Your task to perform on an android device: change the upload size in google photos Image 0: 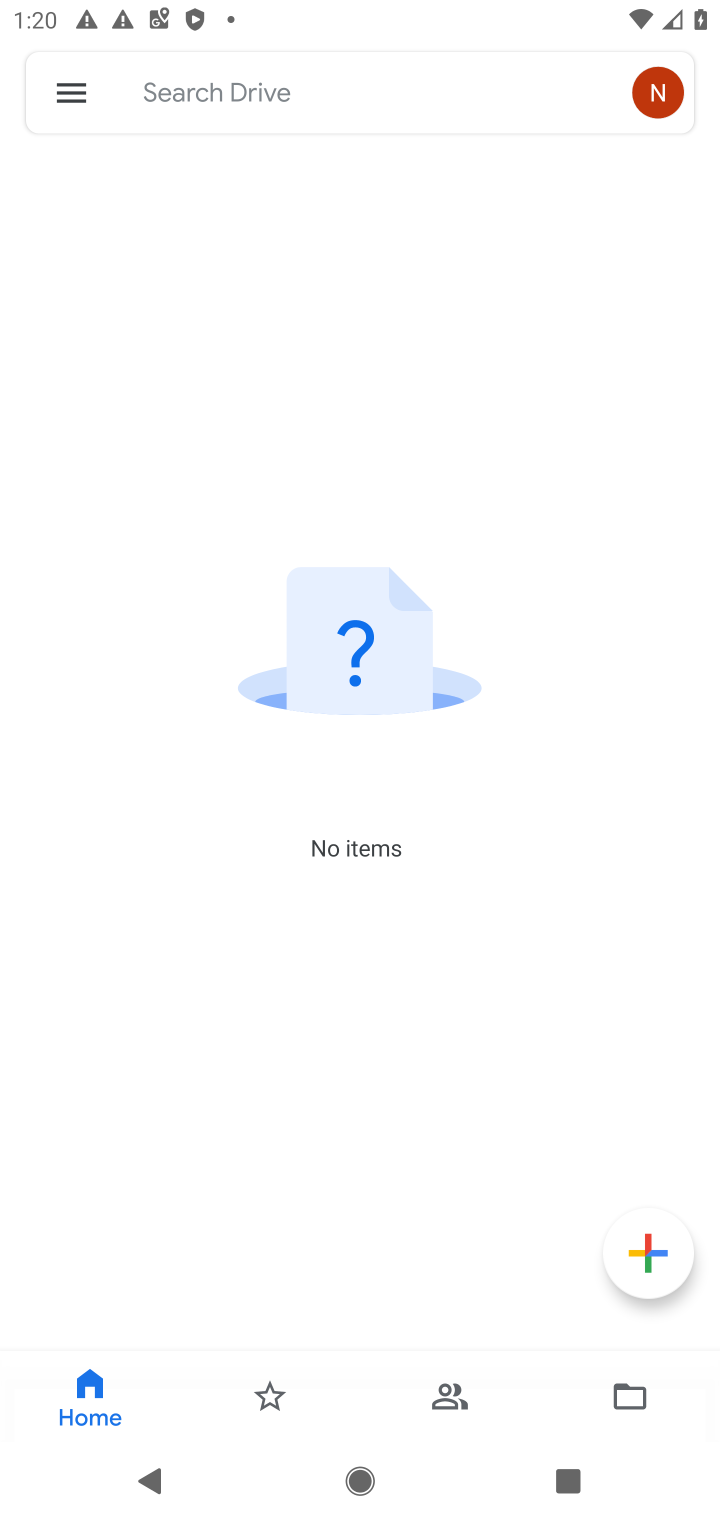
Step 0: press home button
Your task to perform on an android device: change the upload size in google photos Image 1: 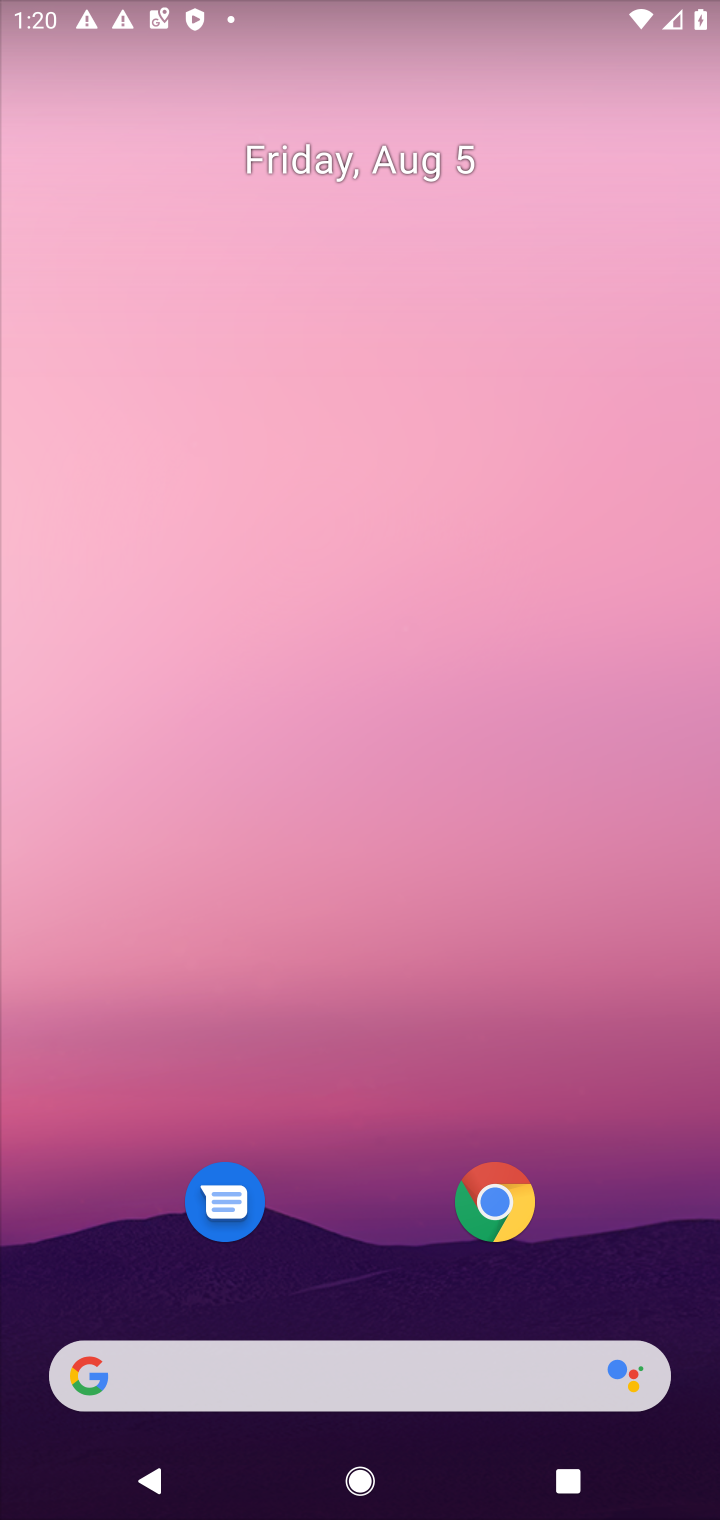
Step 1: drag from (669, 987) to (672, 253)
Your task to perform on an android device: change the upload size in google photos Image 2: 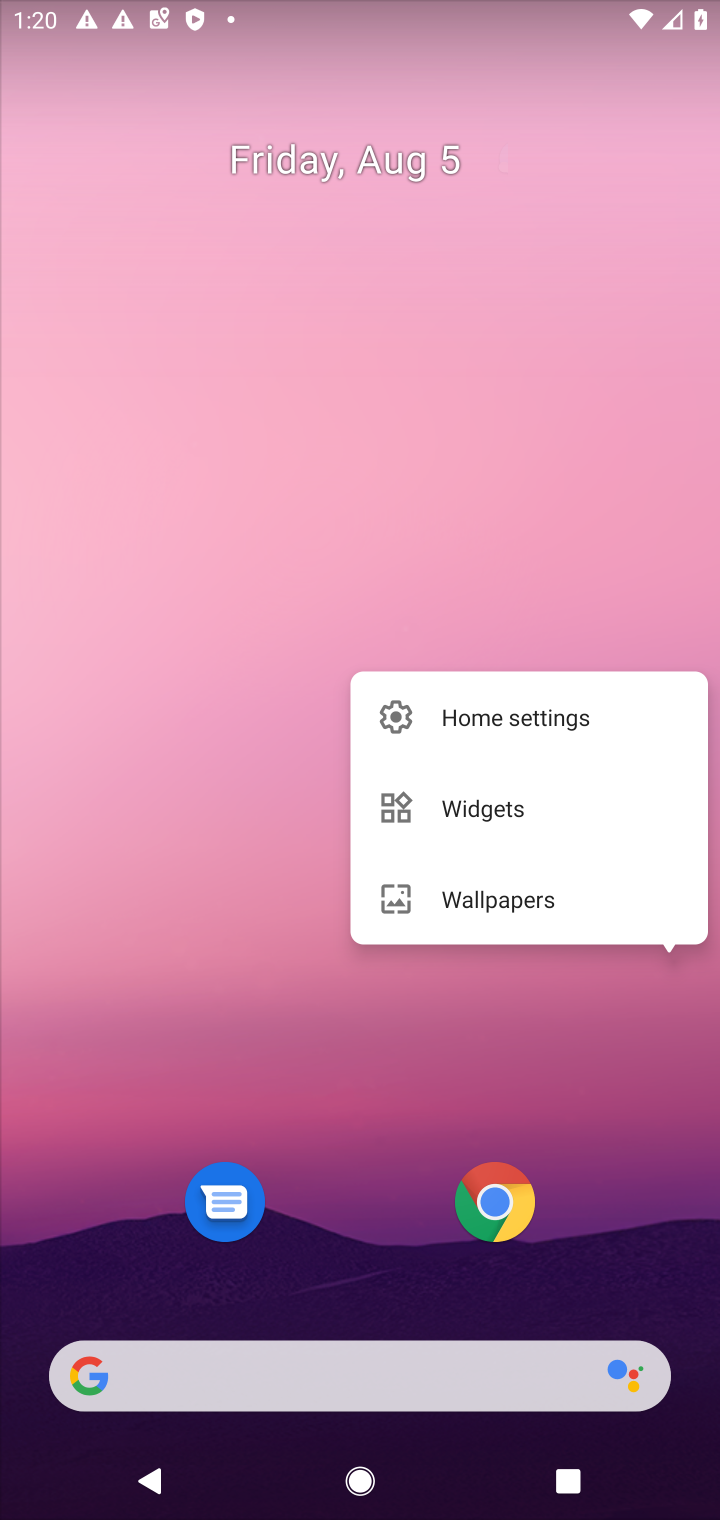
Step 2: click (138, 474)
Your task to perform on an android device: change the upload size in google photos Image 3: 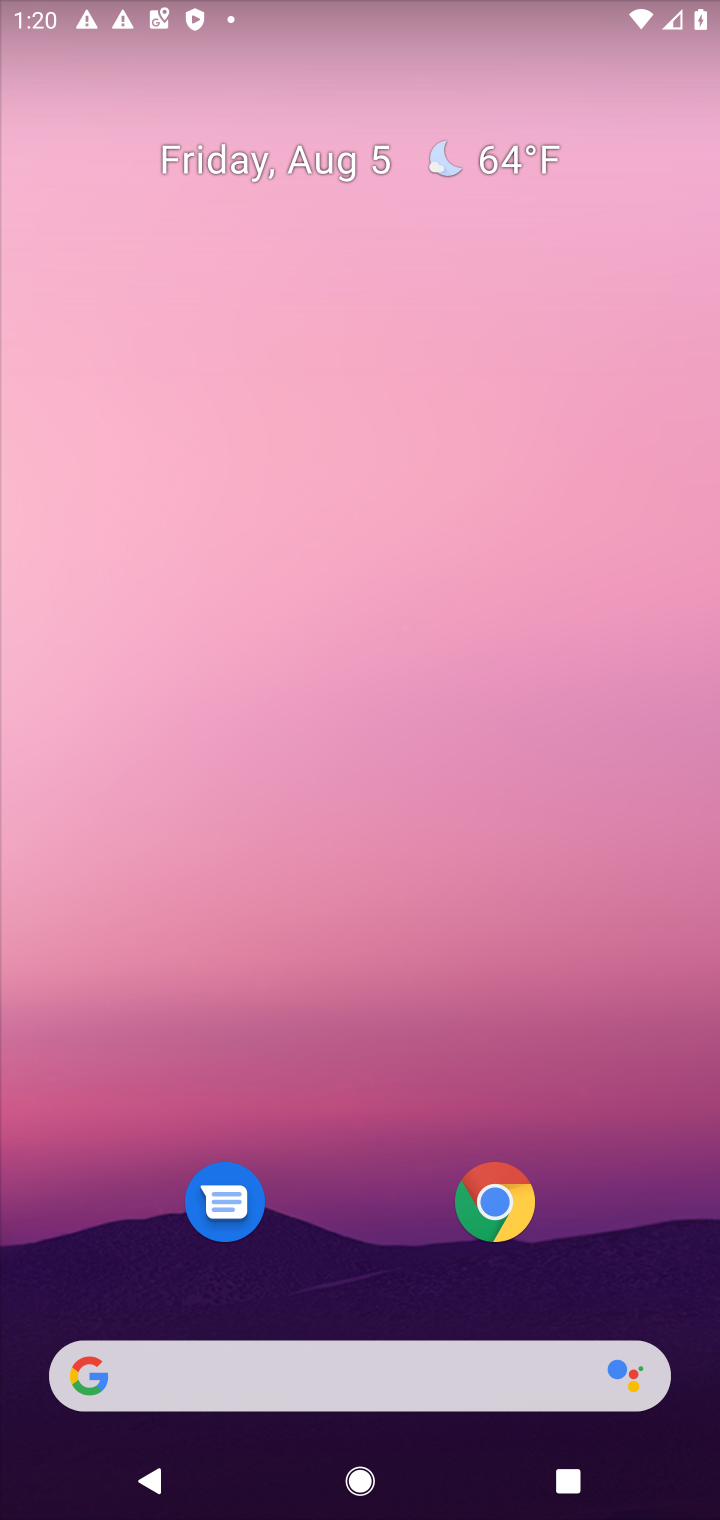
Step 3: drag from (376, 1219) to (543, 231)
Your task to perform on an android device: change the upload size in google photos Image 4: 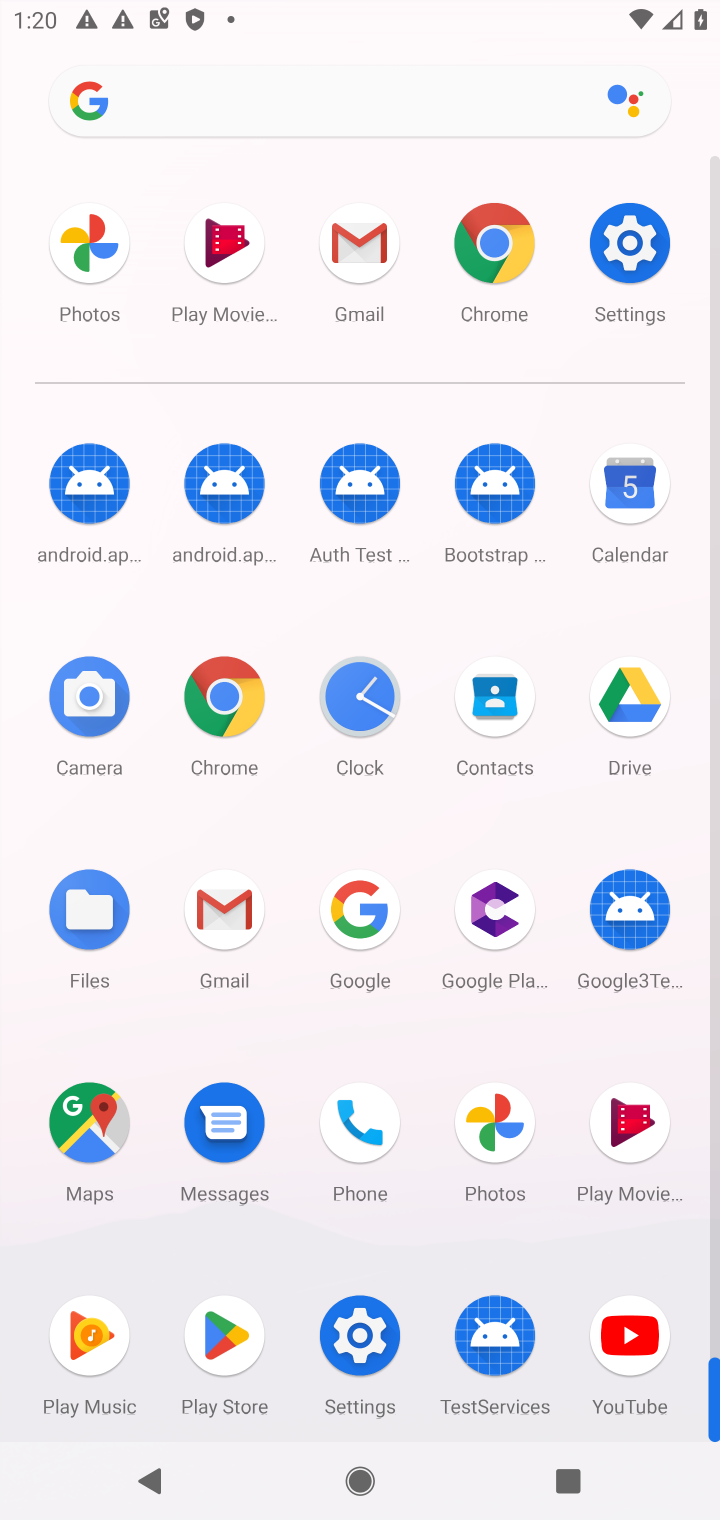
Step 4: click (486, 1116)
Your task to perform on an android device: change the upload size in google photos Image 5: 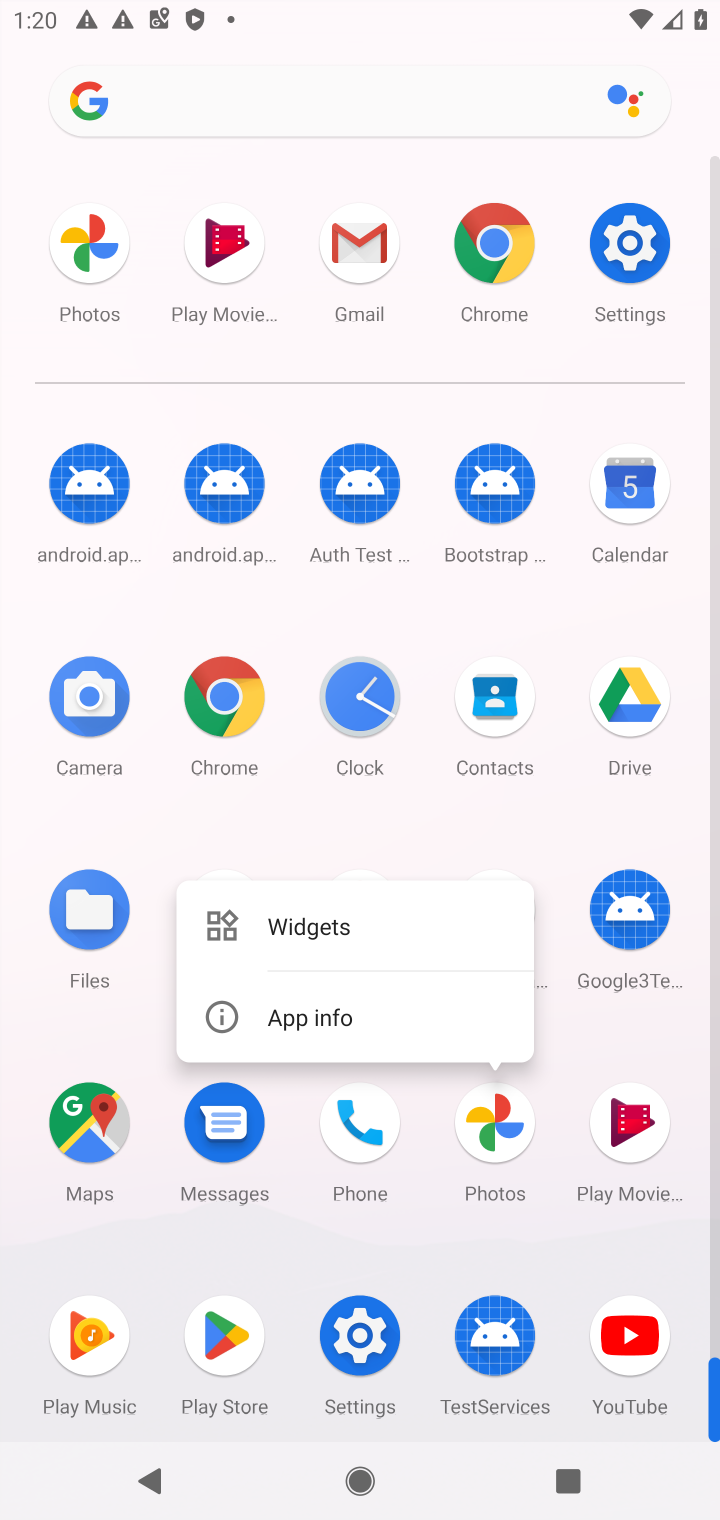
Step 5: click (492, 1124)
Your task to perform on an android device: change the upload size in google photos Image 6: 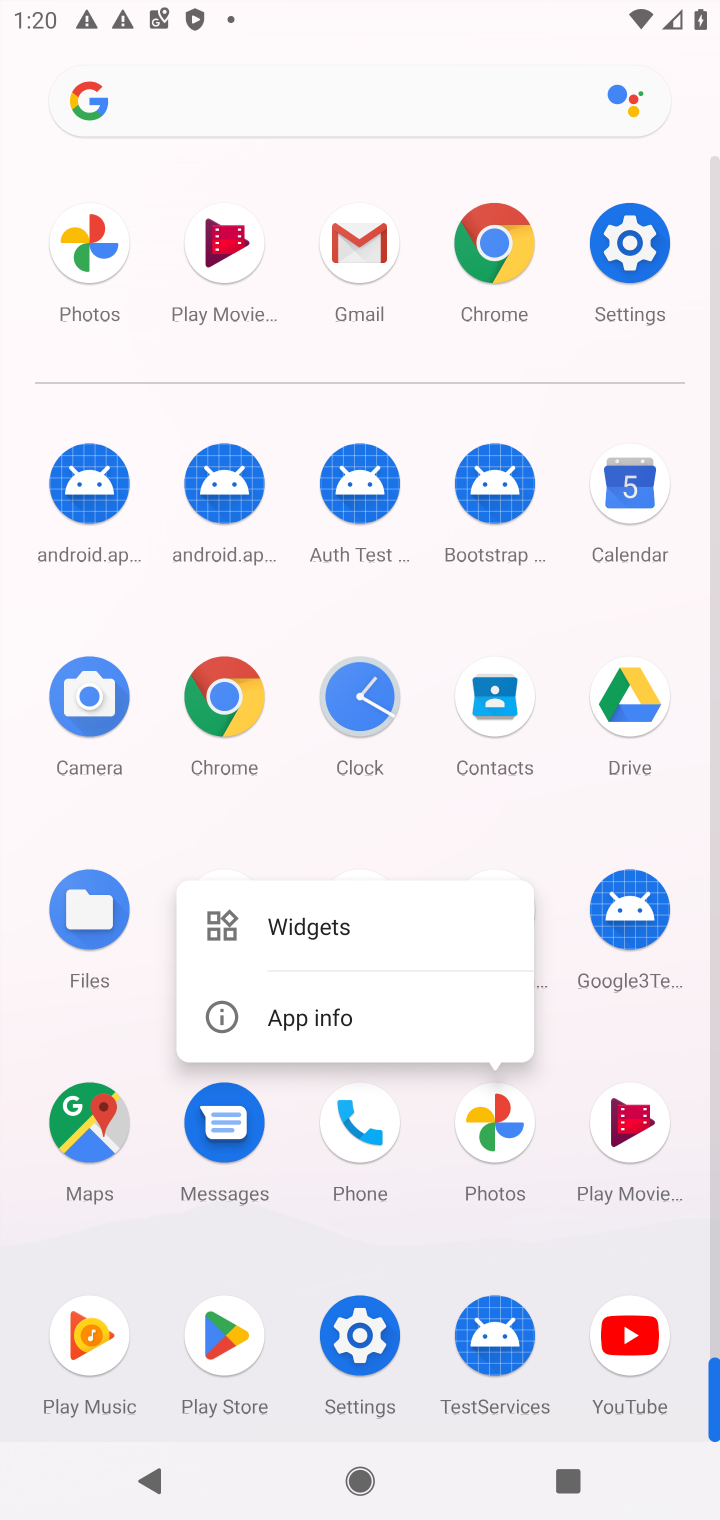
Step 6: click (492, 1124)
Your task to perform on an android device: change the upload size in google photos Image 7: 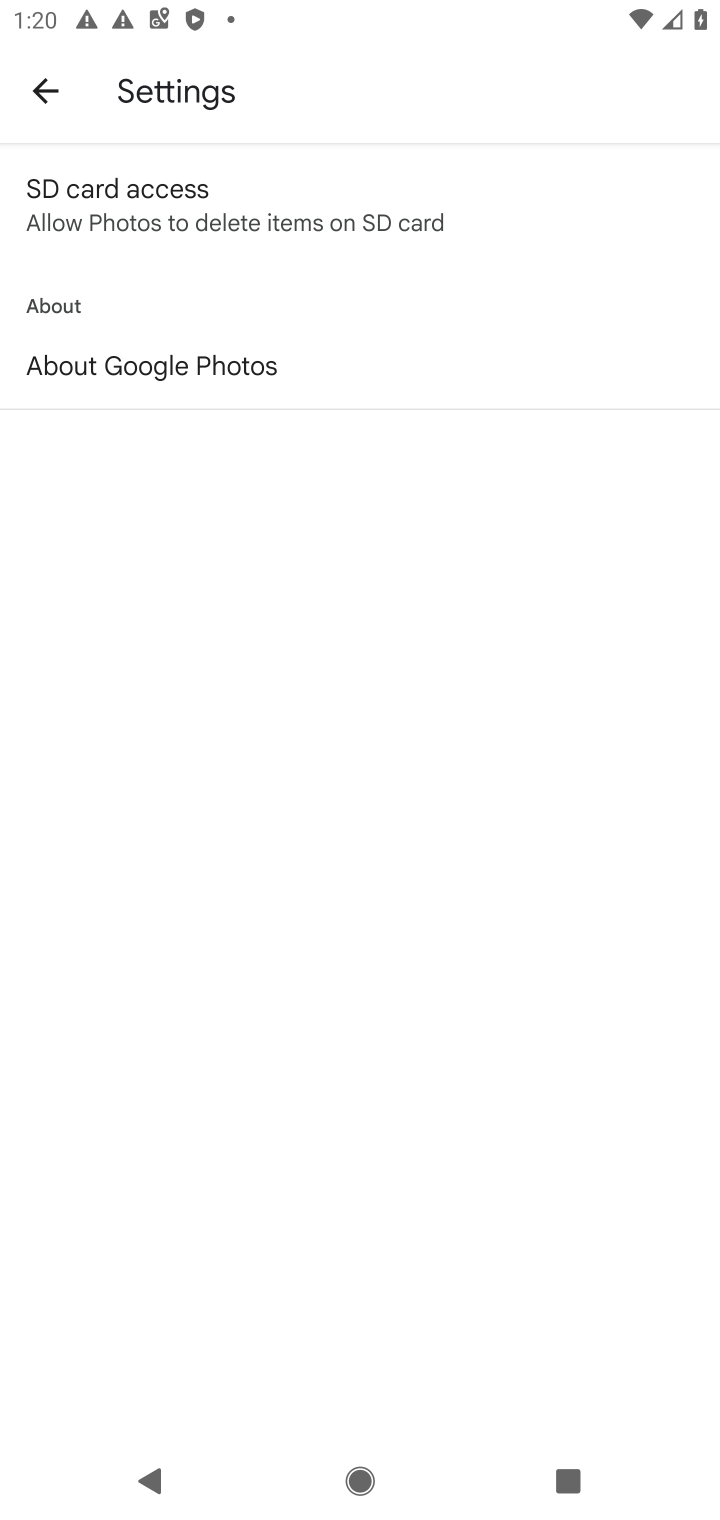
Step 7: click (45, 73)
Your task to perform on an android device: change the upload size in google photos Image 8: 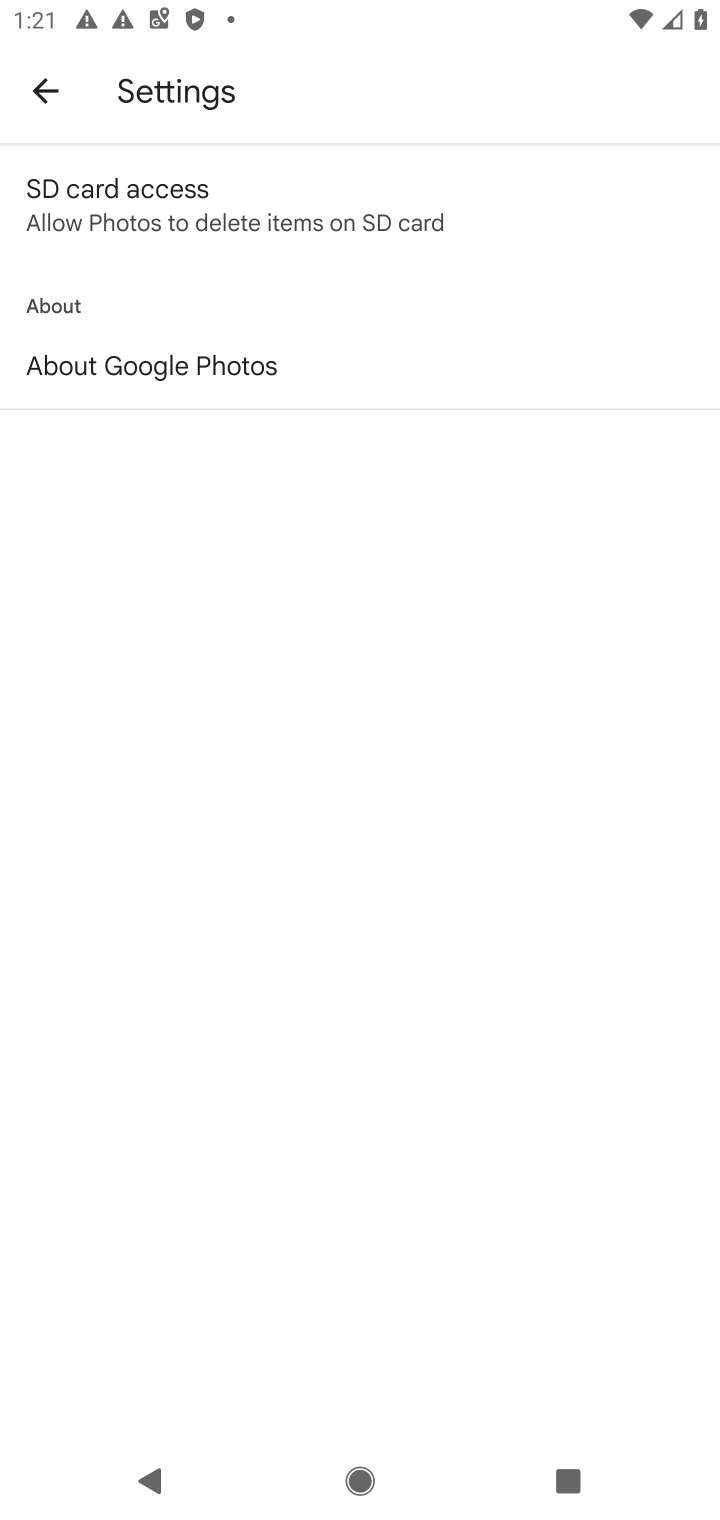
Step 8: click (36, 90)
Your task to perform on an android device: change the upload size in google photos Image 9: 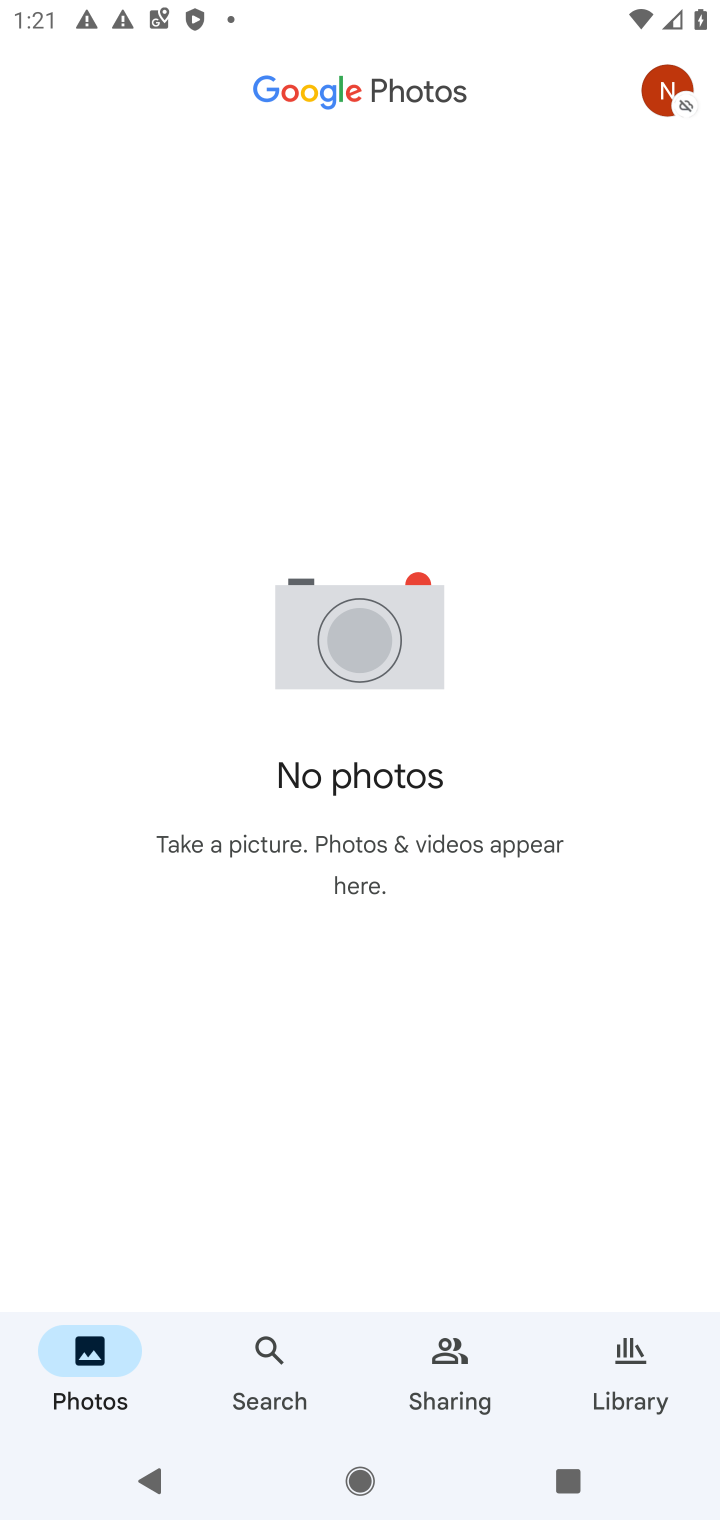
Step 9: click (677, 85)
Your task to perform on an android device: change the upload size in google photos Image 10: 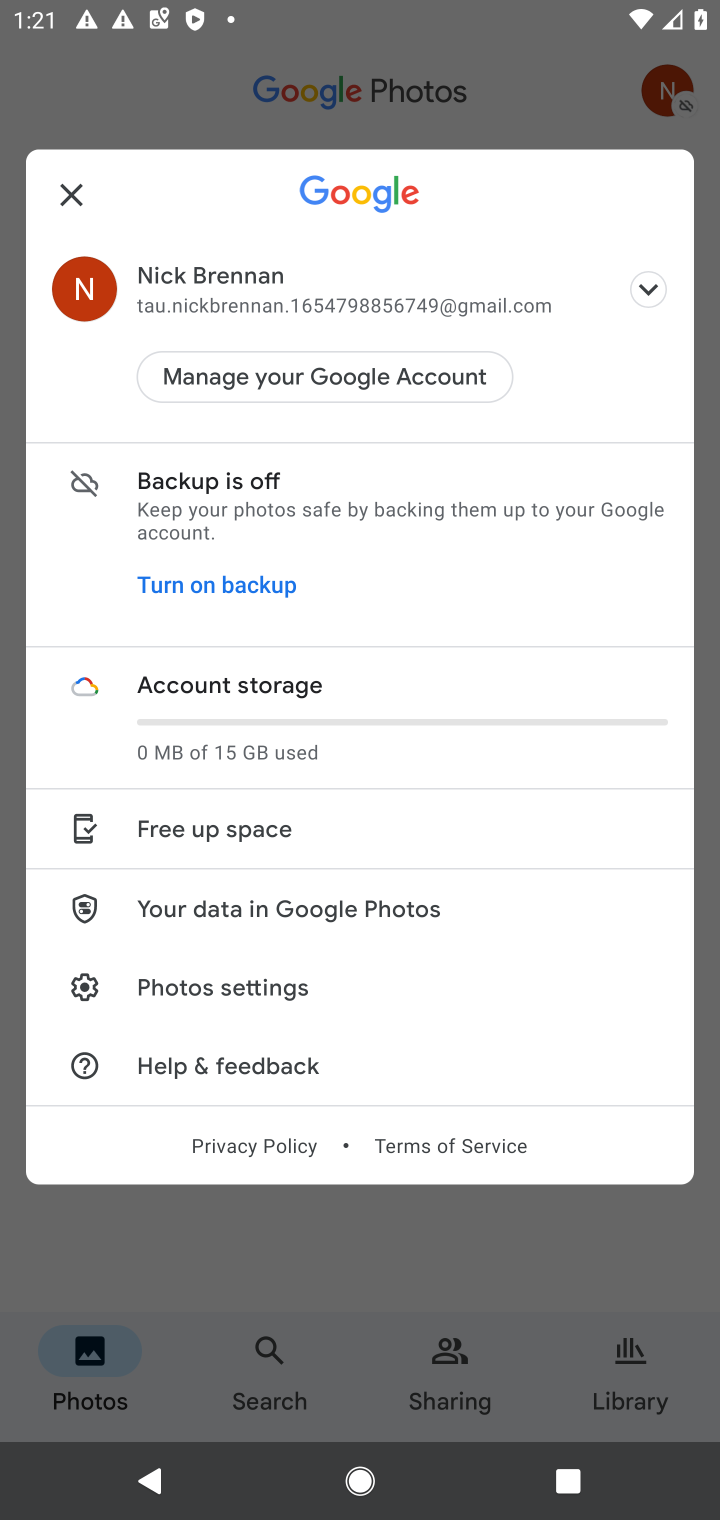
Step 10: click (288, 991)
Your task to perform on an android device: change the upload size in google photos Image 11: 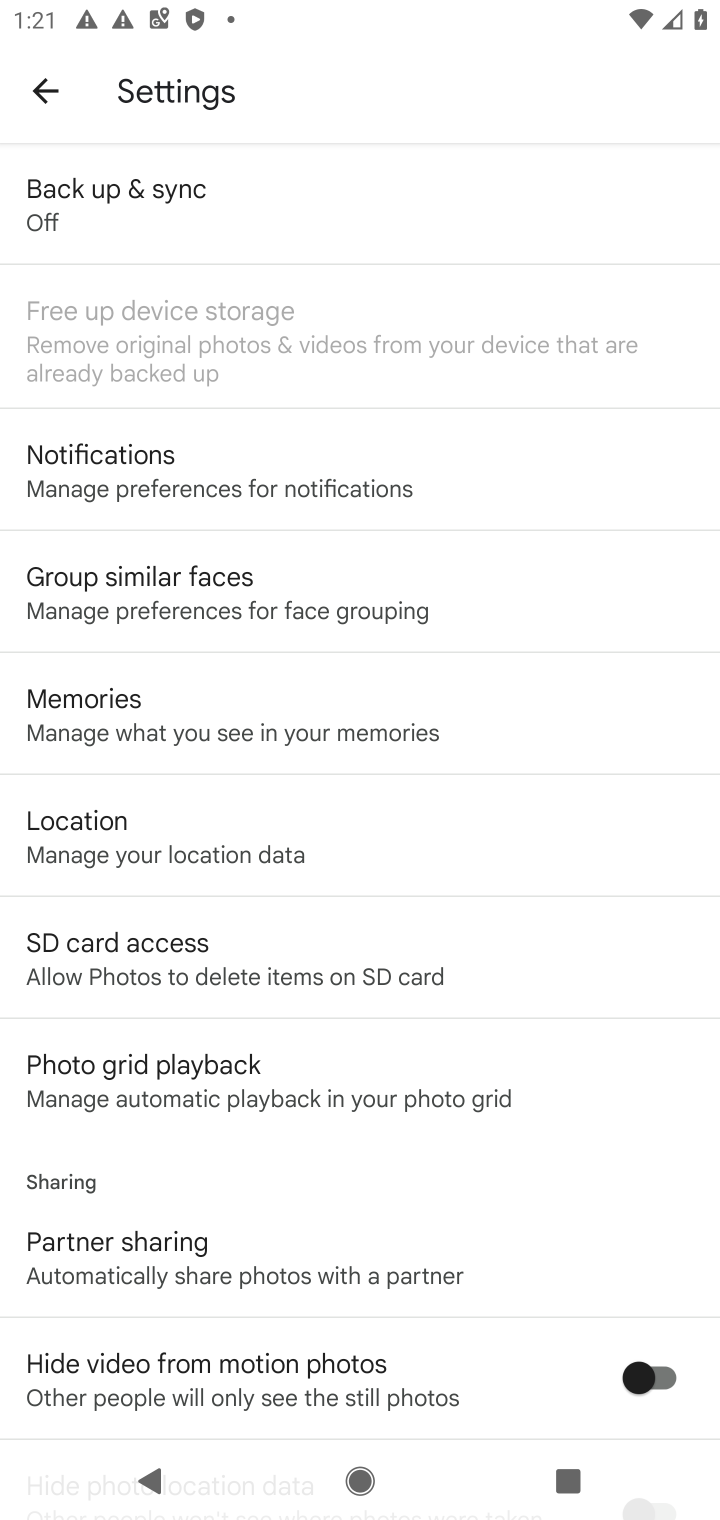
Step 11: click (419, 233)
Your task to perform on an android device: change the upload size in google photos Image 12: 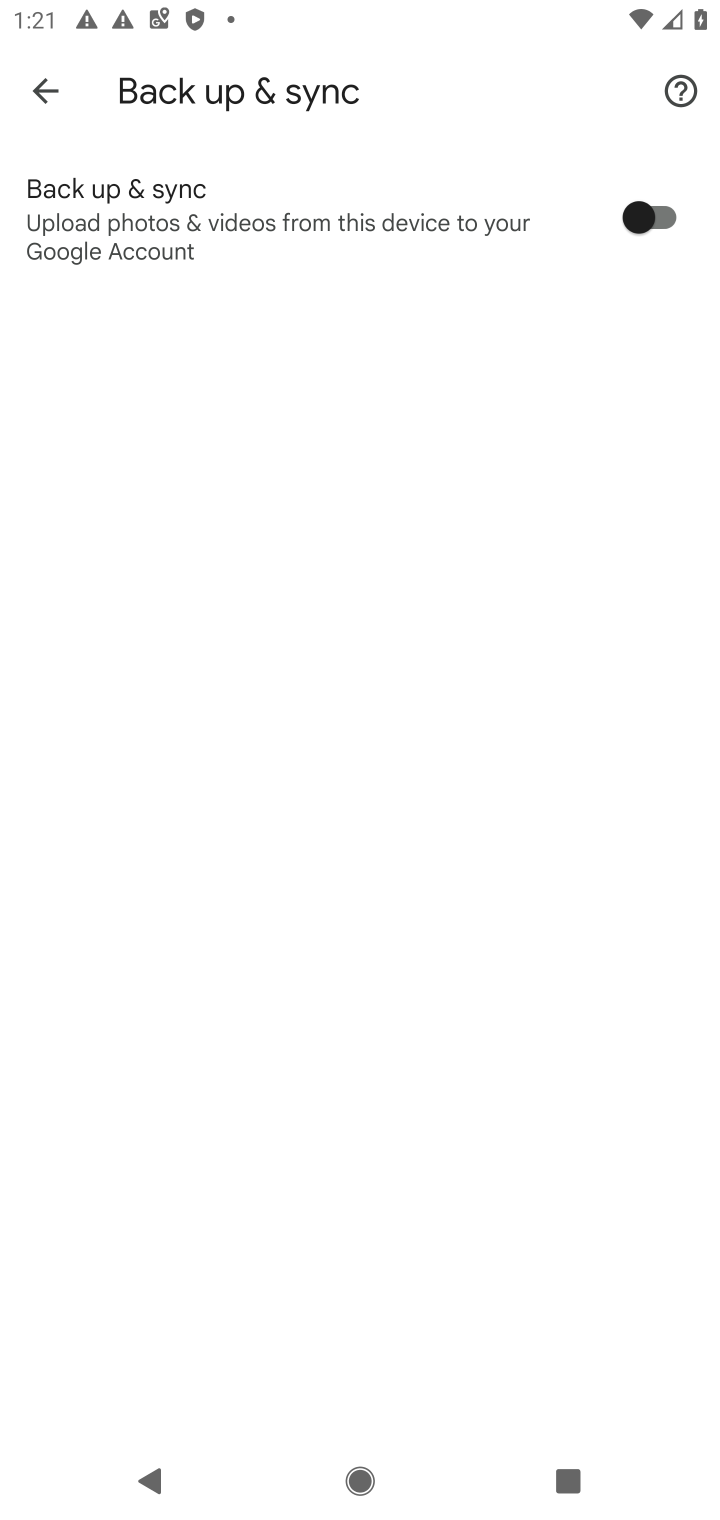
Step 12: drag from (30, 75) to (575, 488)
Your task to perform on an android device: change the upload size in google photos Image 13: 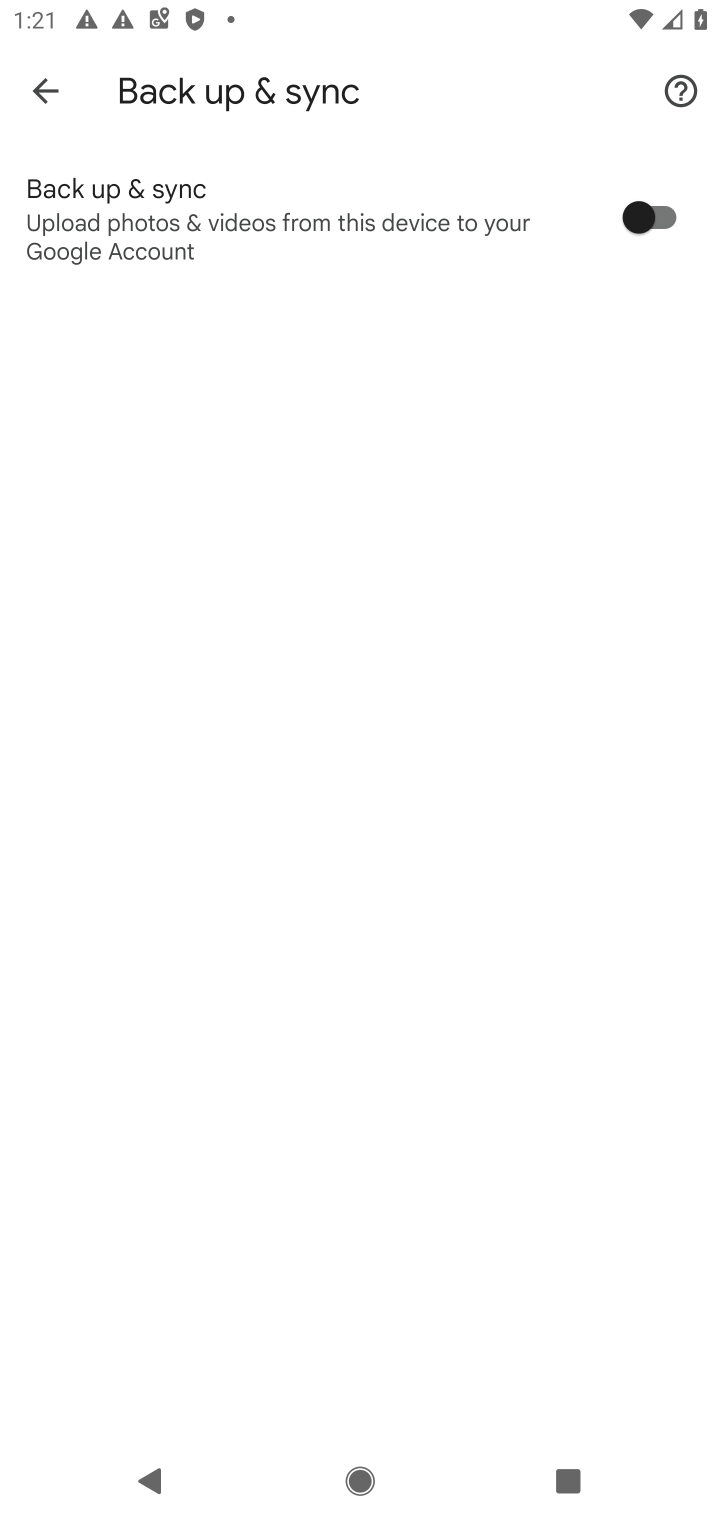
Step 13: click (643, 208)
Your task to perform on an android device: change the upload size in google photos Image 14: 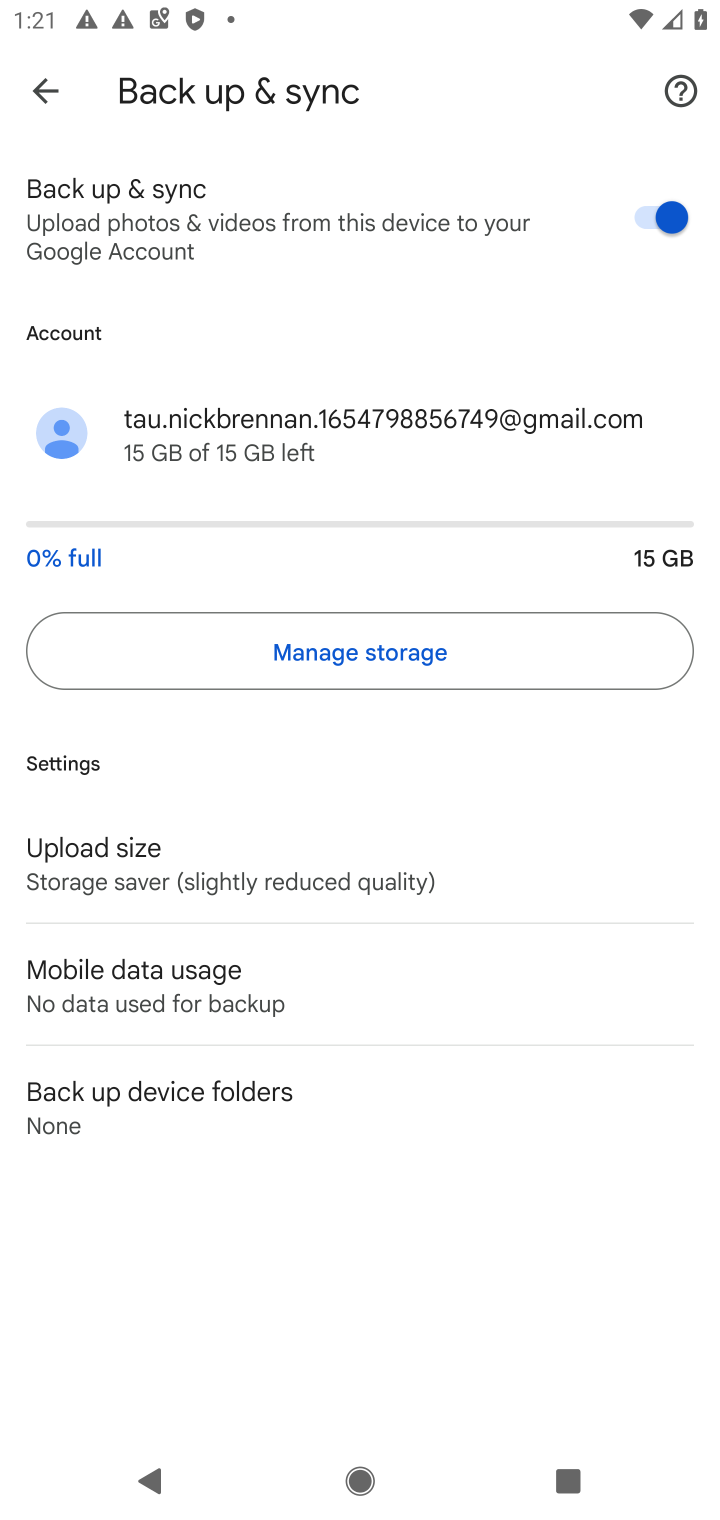
Step 14: click (248, 873)
Your task to perform on an android device: change the upload size in google photos Image 15: 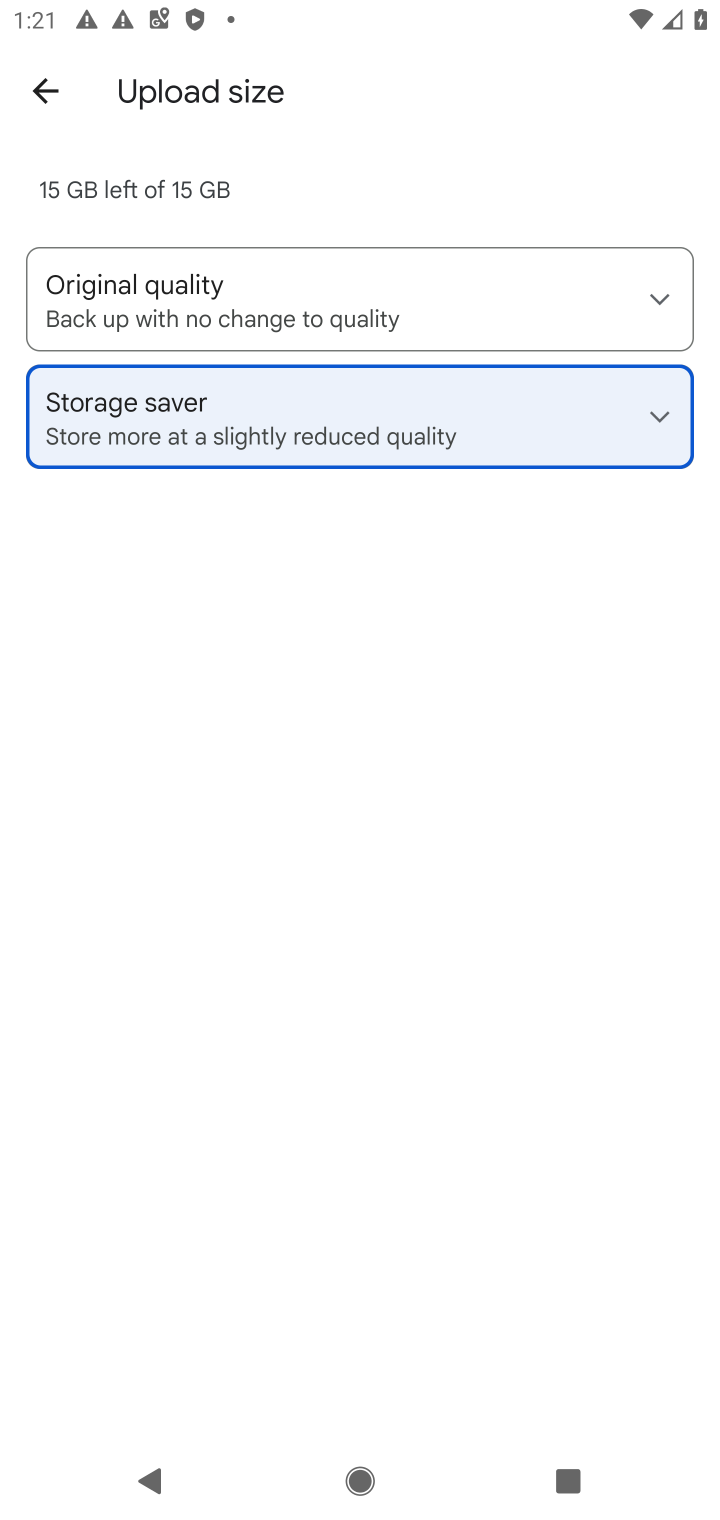
Step 15: click (672, 289)
Your task to perform on an android device: change the upload size in google photos Image 16: 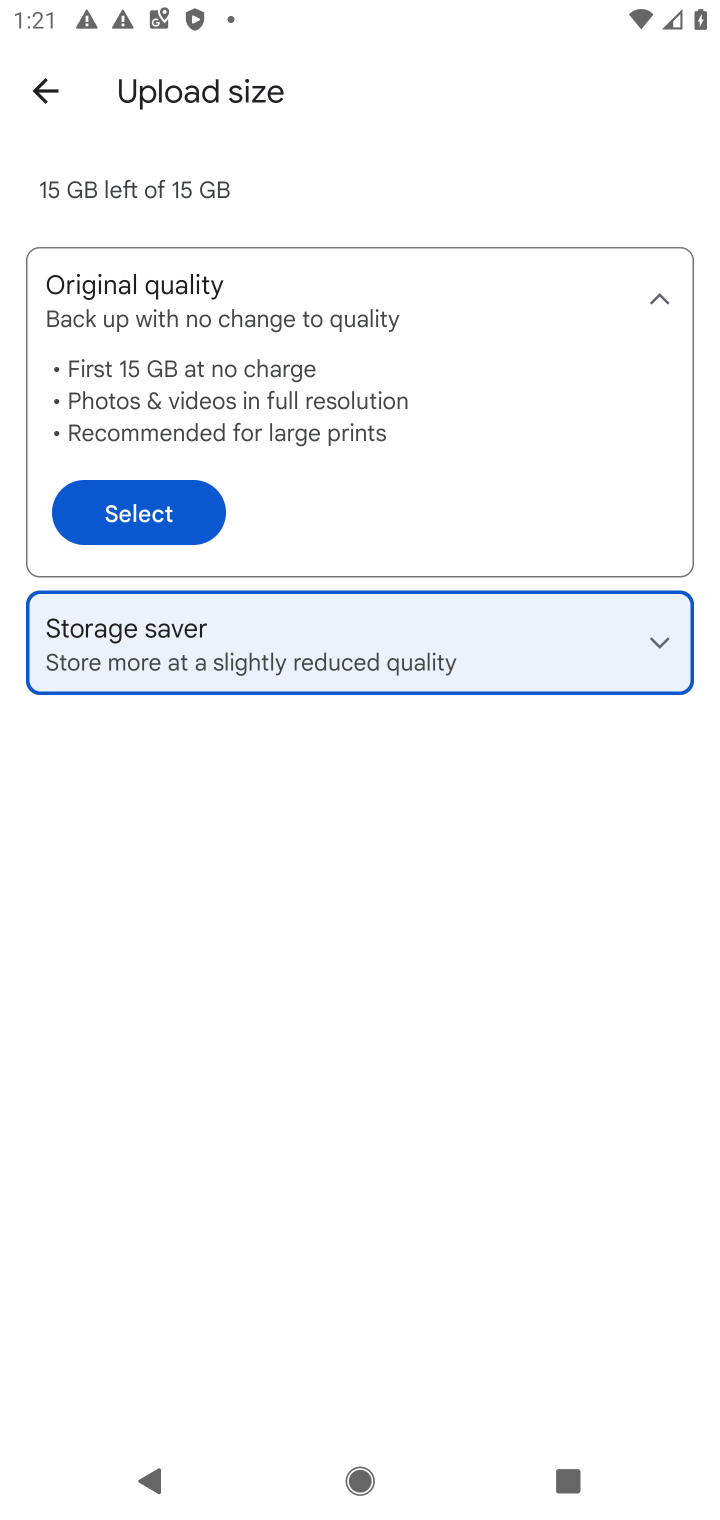
Step 16: click (136, 535)
Your task to perform on an android device: change the upload size in google photos Image 17: 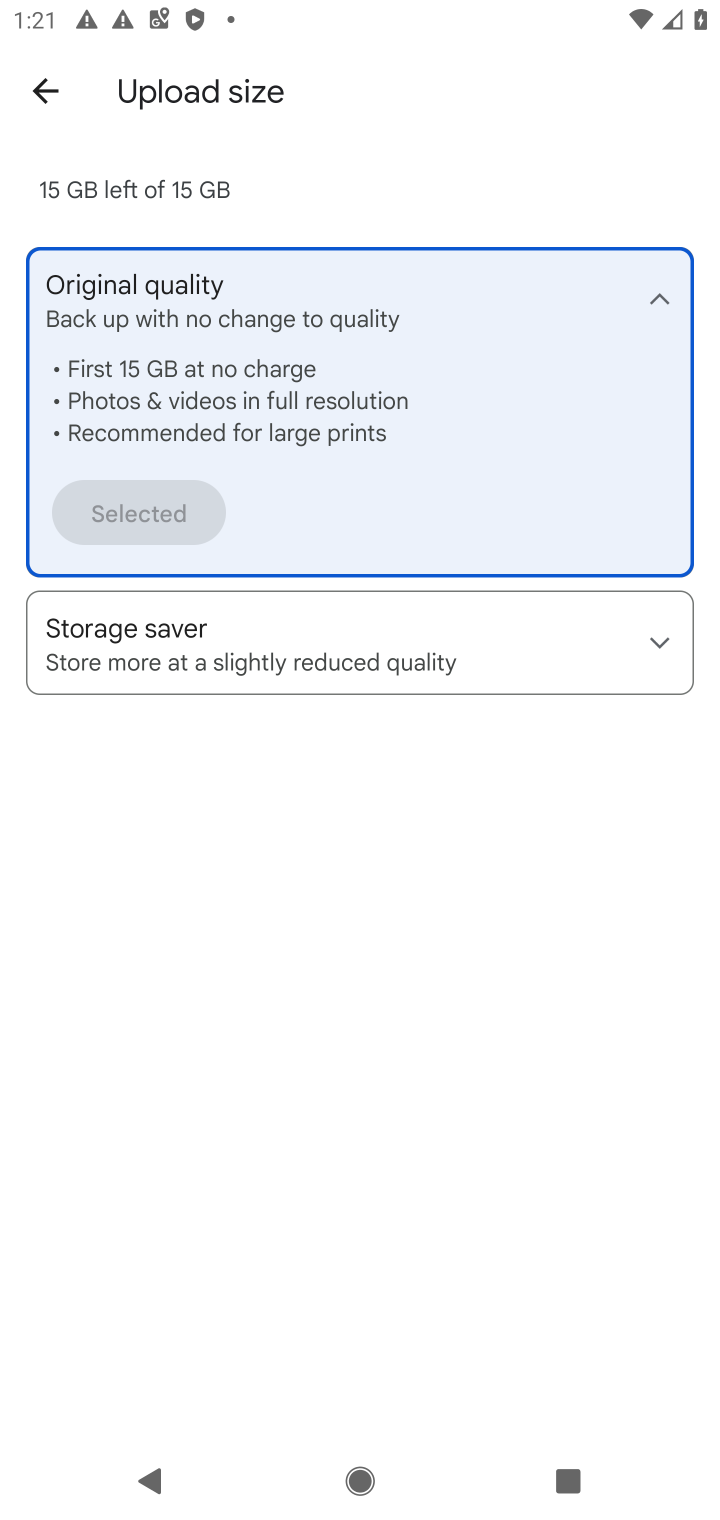
Step 17: task complete